Your task to perform on an android device: add a label to a message in the gmail app Image 0: 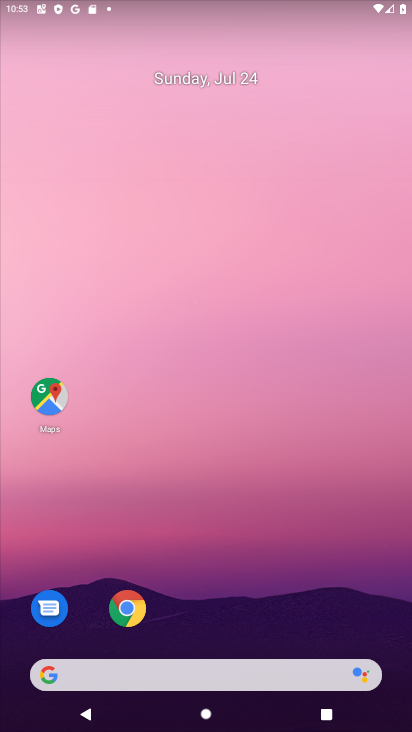
Step 0: drag from (198, 628) to (320, 151)
Your task to perform on an android device: add a label to a message in the gmail app Image 1: 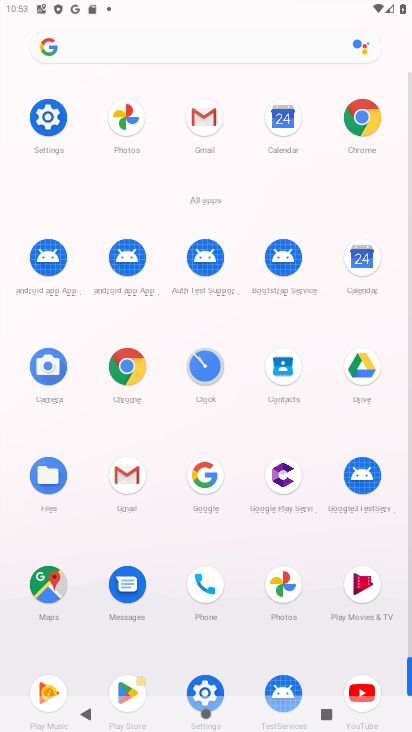
Step 1: click (124, 468)
Your task to perform on an android device: add a label to a message in the gmail app Image 2: 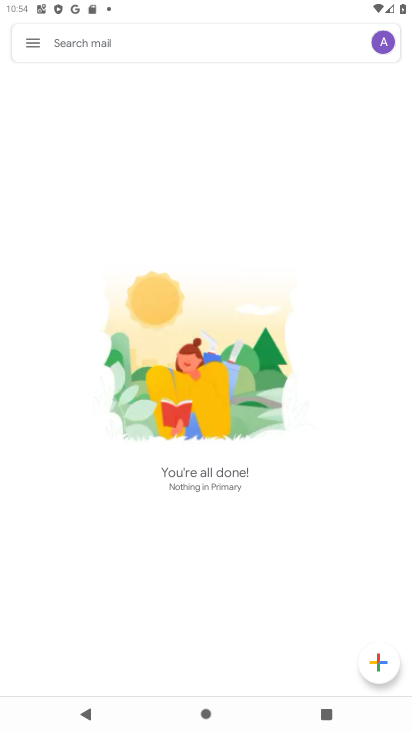
Step 2: task complete